Your task to perform on an android device: Search for "macbook" on costco, select the first entry, and add it to the cart. Image 0: 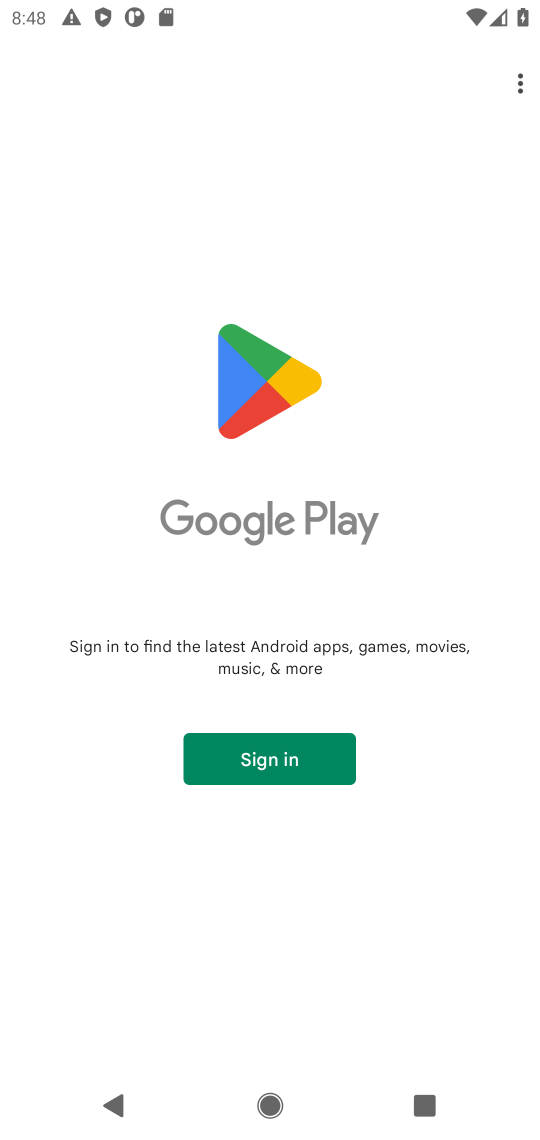
Step 0: press home button
Your task to perform on an android device: Search for "macbook" on costco, select the first entry, and add it to the cart. Image 1: 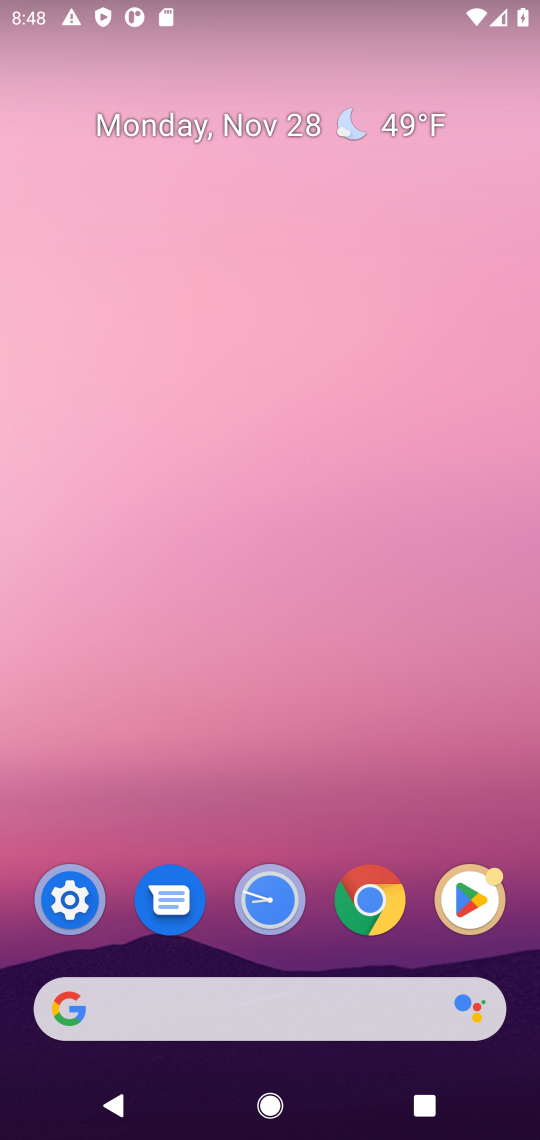
Step 1: click (345, 1004)
Your task to perform on an android device: Search for "macbook" on costco, select the first entry, and add it to the cart. Image 2: 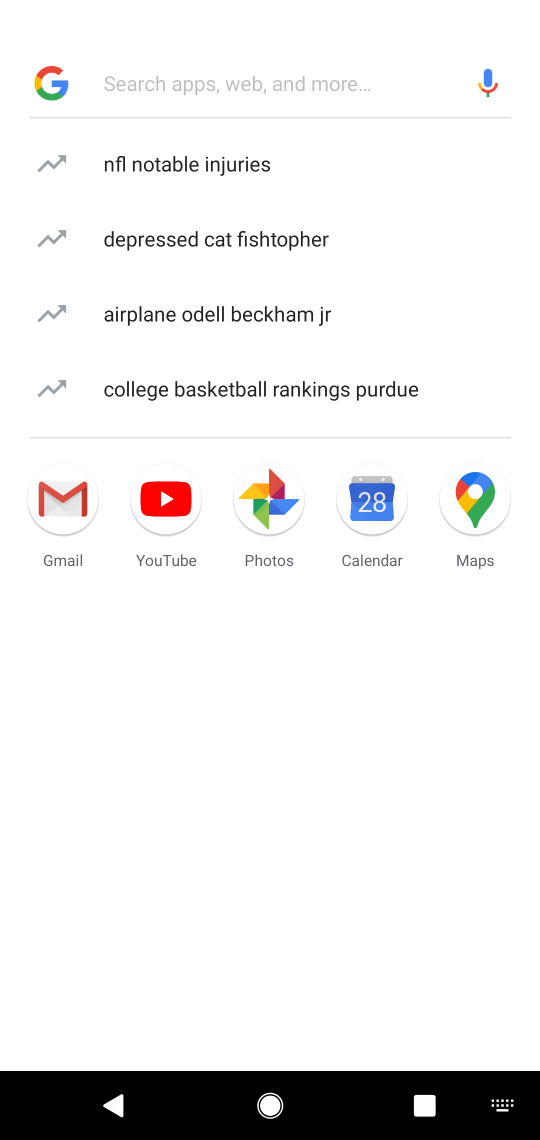
Step 2: type "costco.com"
Your task to perform on an android device: Search for "macbook" on costco, select the first entry, and add it to the cart. Image 3: 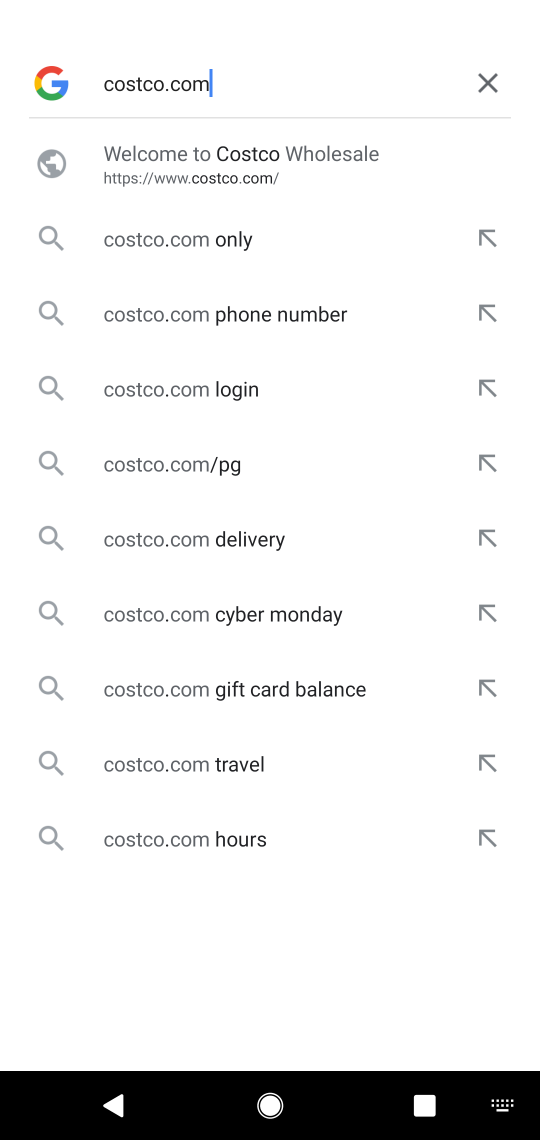
Step 3: click (193, 144)
Your task to perform on an android device: Search for "macbook" on costco, select the first entry, and add it to the cart. Image 4: 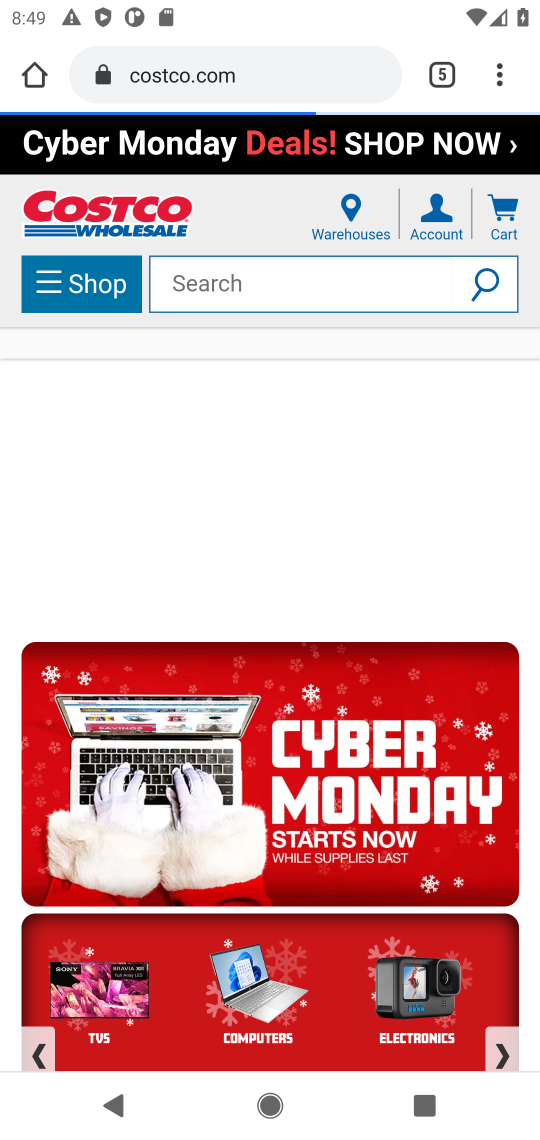
Step 4: click (234, 286)
Your task to perform on an android device: Search for "macbook" on costco, select the first entry, and add it to the cart. Image 5: 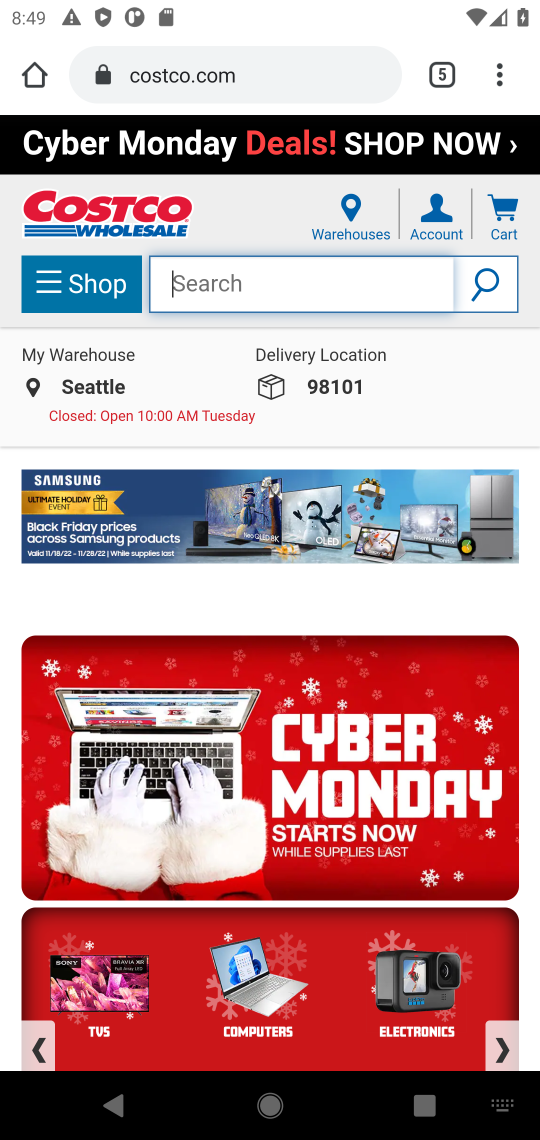
Step 5: type "macbook"
Your task to perform on an android device: Search for "macbook" on costco, select the first entry, and add it to the cart. Image 6: 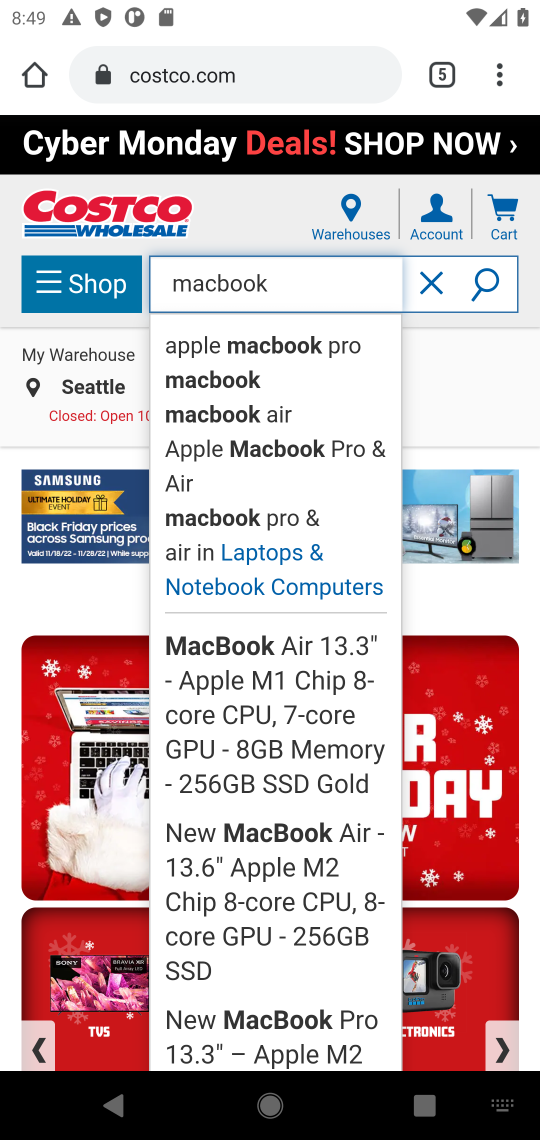
Step 6: click (477, 300)
Your task to perform on an android device: Search for "macbook" on costco, select the first entry, and add it to the cart. Image 7: 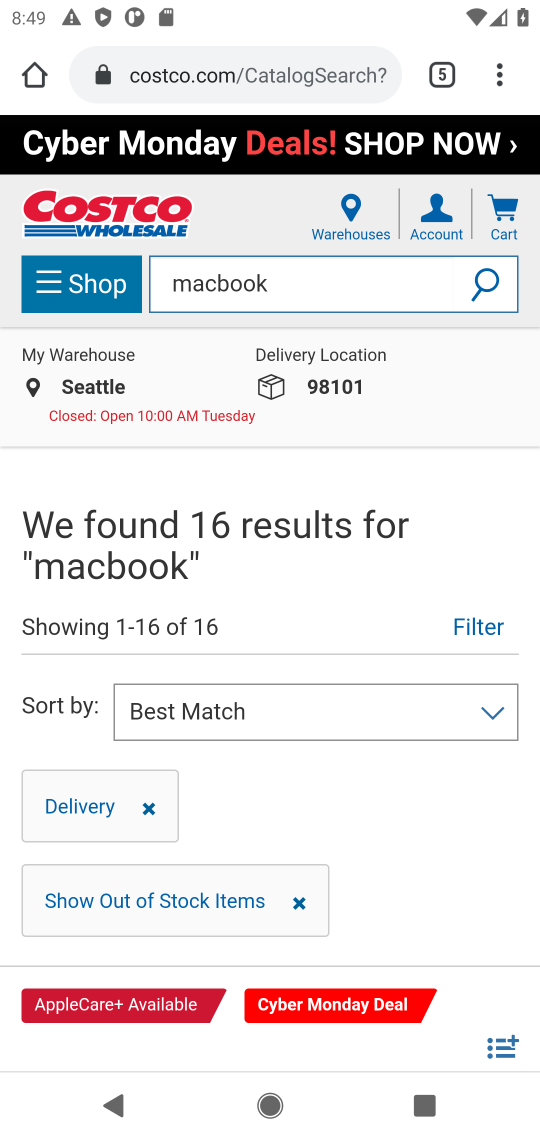
Step 7: task complete